Your task to perform on an android device: Open calendar and show me the second week of next month Image 0: 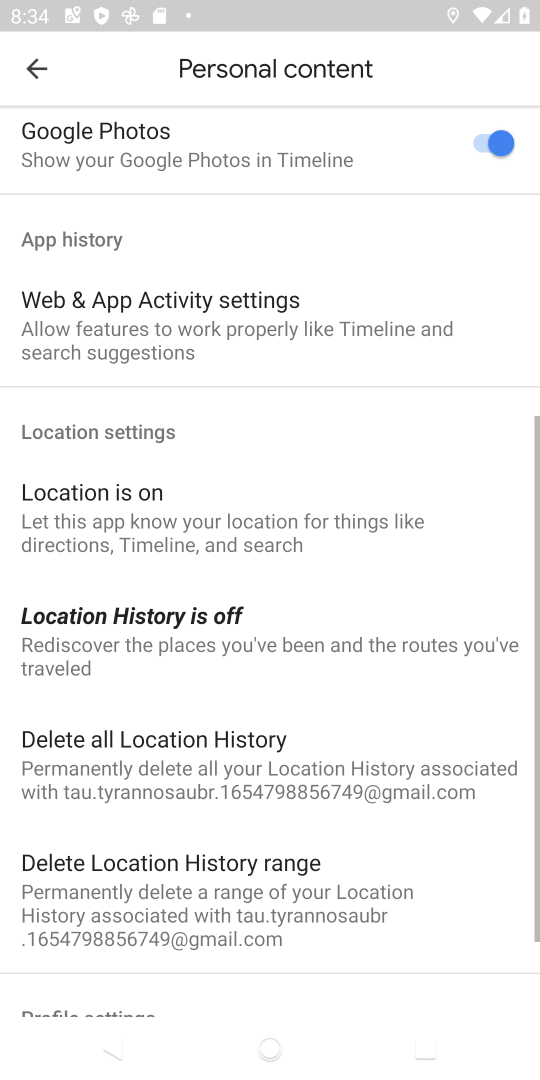
Step 0: press home button
Your task to perform on an android device: Open calendar and show me the second week of next month Image 1: 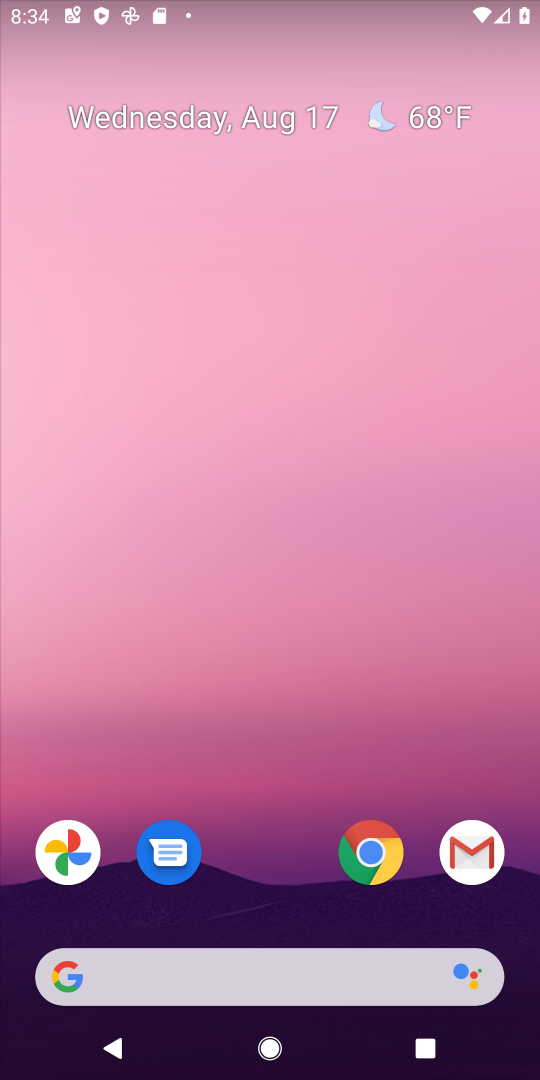
Step 1: drag from (271, 900) to (270, 4)
Your task to perform on an android device: Open calendar and show me the second week of next month Image 2: 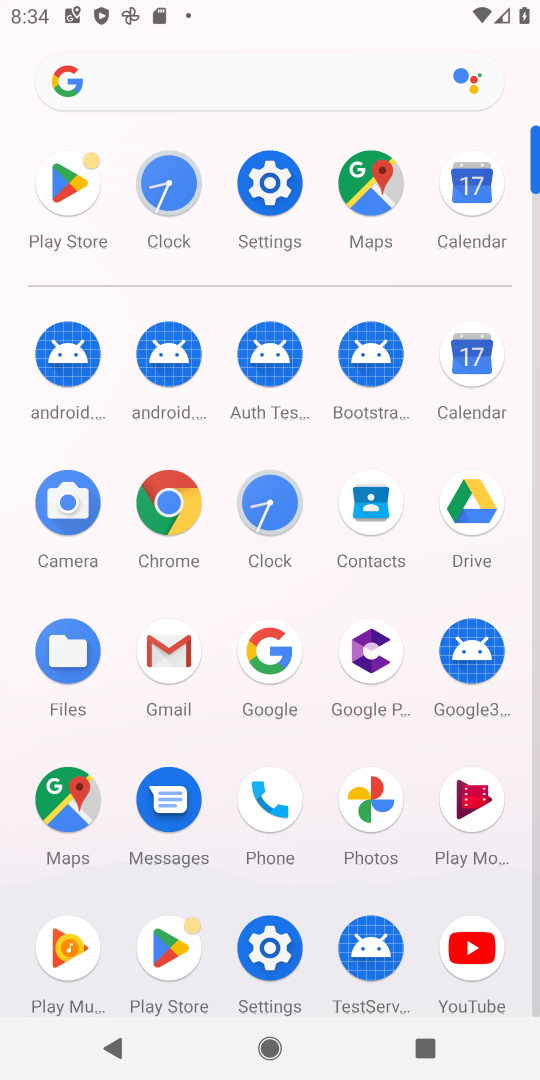
Step 2: click (463, 361)
Your task to perform on an android device: Open calendar and show me the second week of next month Image 3: 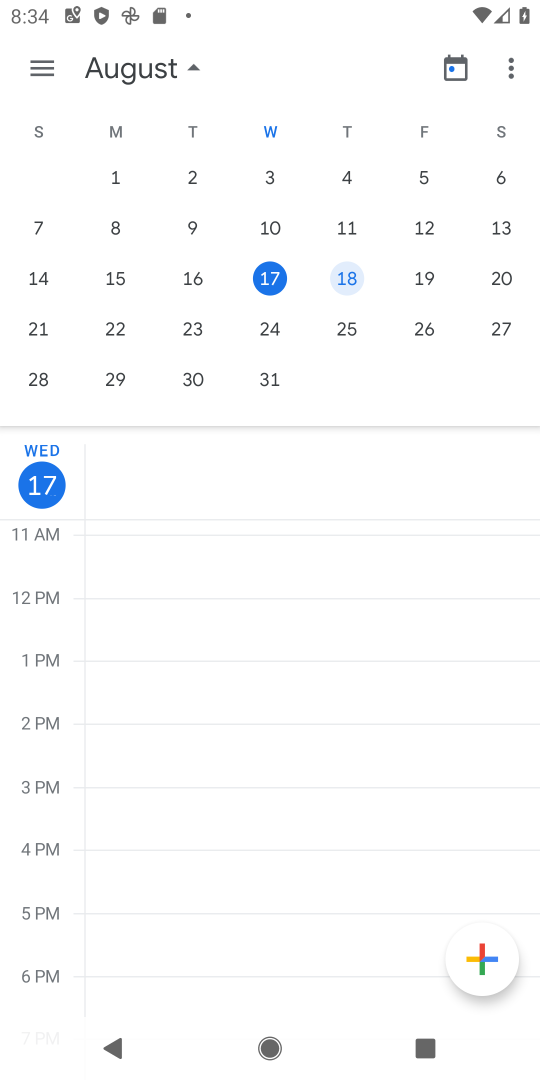
Step 3: click (42, 66)
Your task to perform on an android device: Open calendar and show me the second week of next month Image 4: 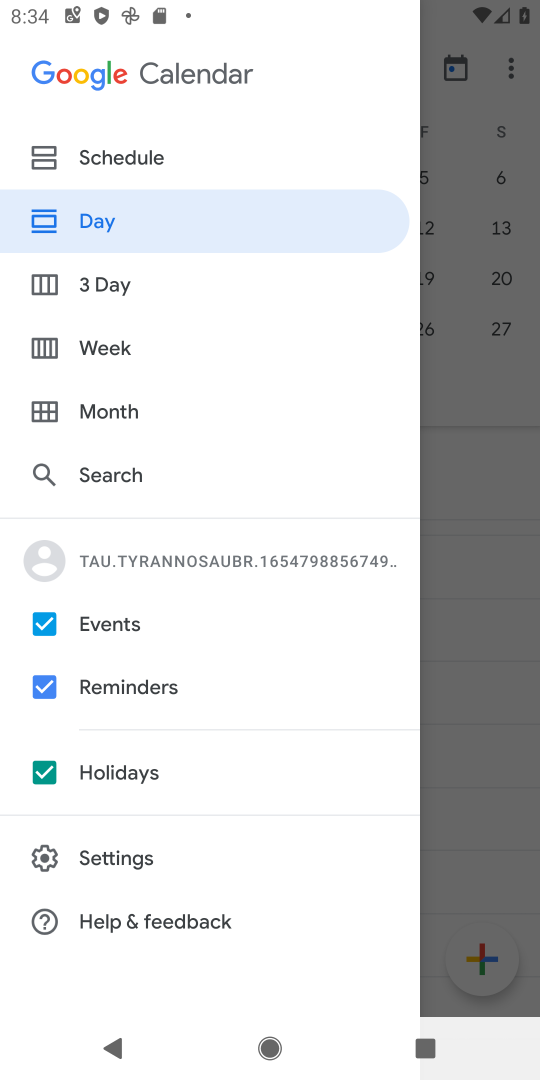
Step 4: click (99, 338)
Your task to perform on an android device: Open calendar and show me the second week of next month Image 5: 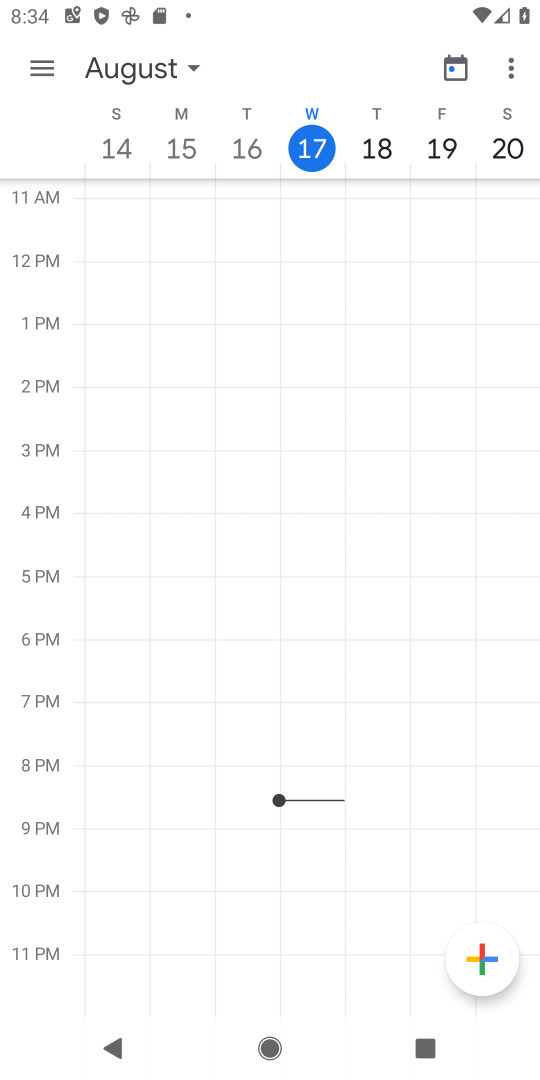
Step 5: click (197, 67)
Your task to perform on an android device: Open calendar and show me the second week of next month Image 6: 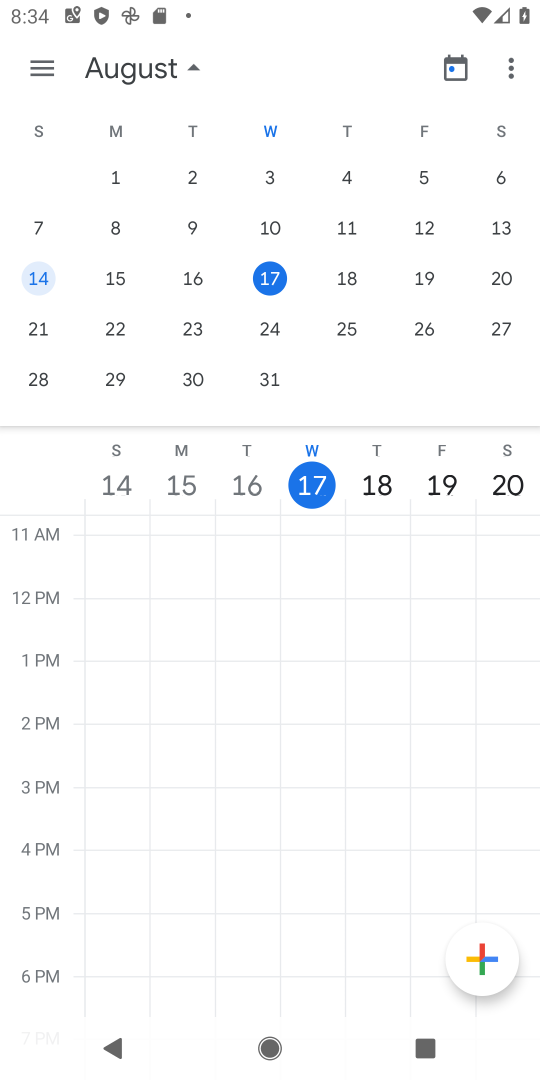
Step 6: drag from (482, 199) to (24, 184)
Your task to perform on an android device: Open calendar and show me the second week of next month Image 7: 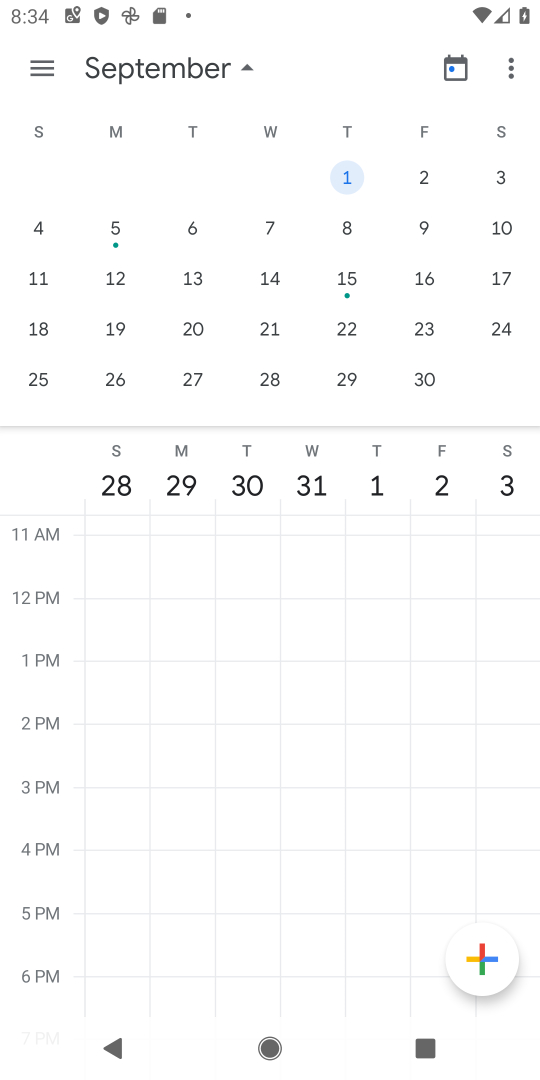
Step 7: click (269, 220)
Your task to perform on an android device: Open calendar and show me the second week of next month Image 8: 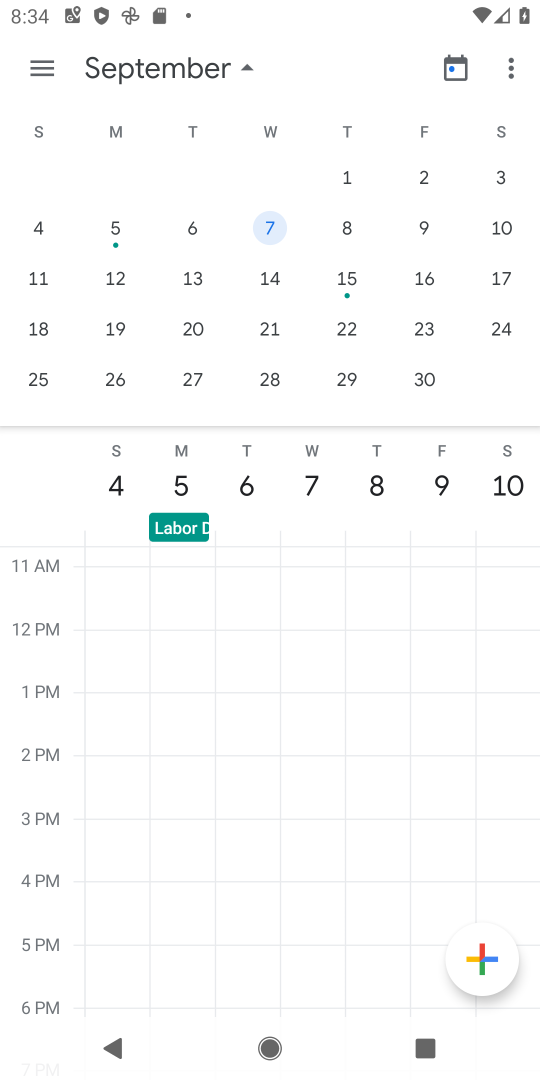
Step 8: task complete